Your task to perform on an android device: set an alarm Image 0: 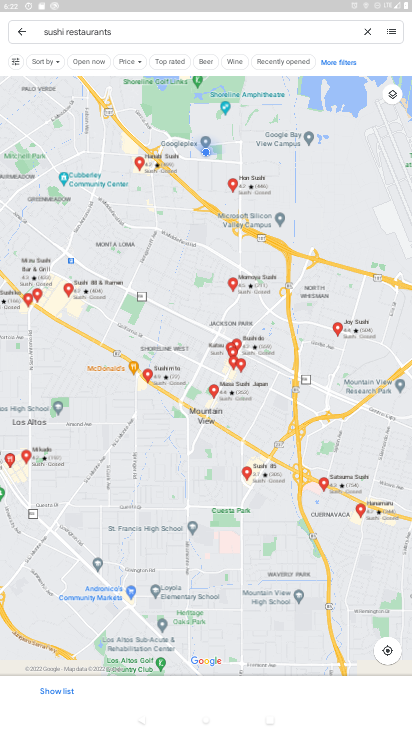
Step 0: press home button
Your task to perform on an android device: set an alarm Image 1: 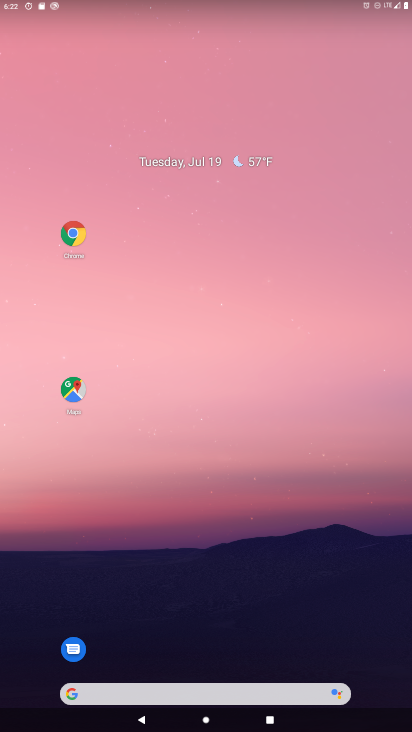
Step 1: drag from (187, 637) to (148, 110)
Your task to perform on an android device: set an alarm Image 2: 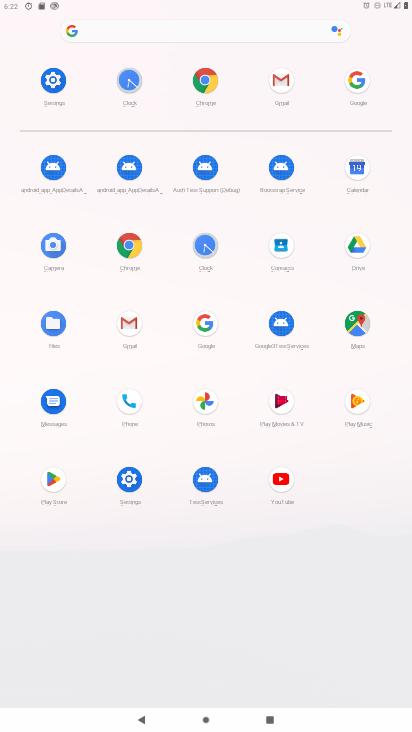
Step 2: click (208, 247)
Your task to perform on an android device: set an alarm Image 3: 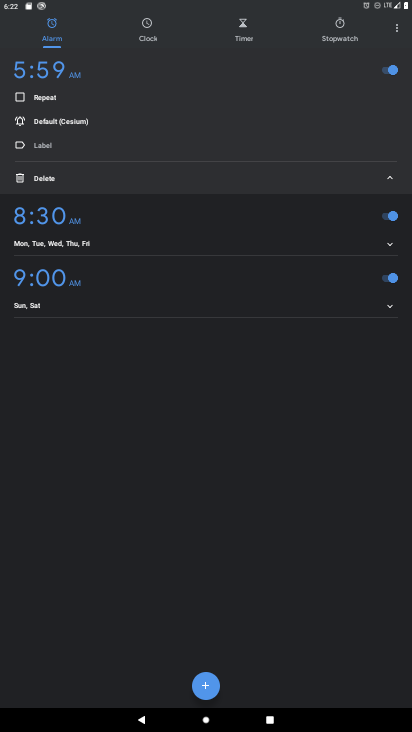
Step 3: click (201, 690)
Your task to perform on an android device: set an alarm Image 4: 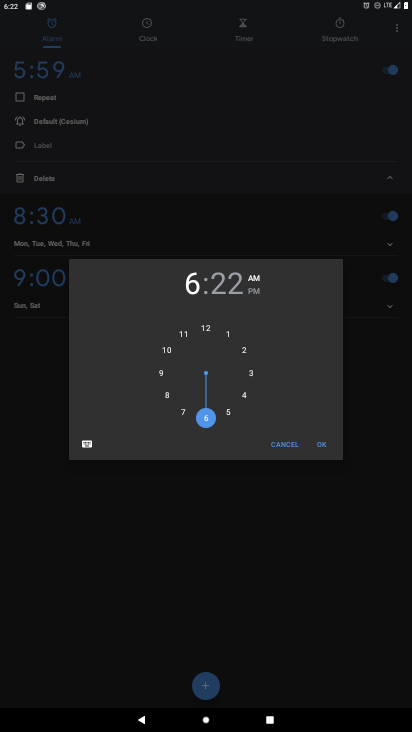
Step 4: click (320, 445)
Your task to perform on an android device: set an alarm Image 5: 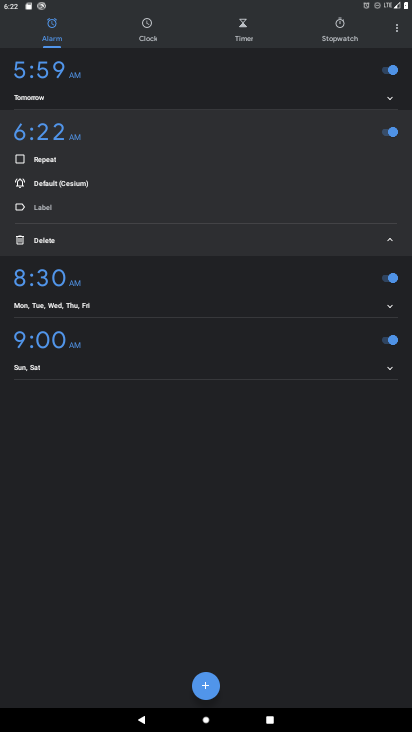
Step 5: task complete